Your task to perform on an android device: change your default location settings in chrome Image 0: 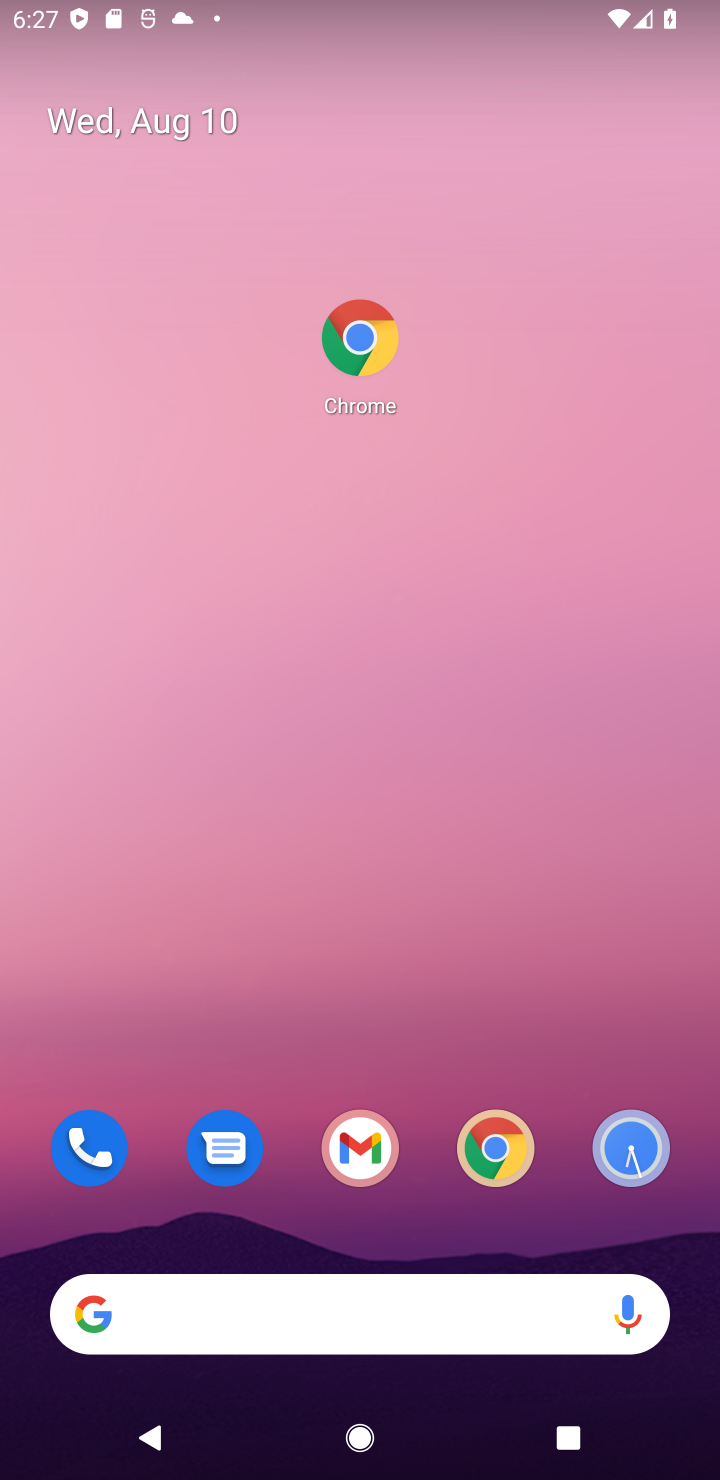
Step 0: click (509, 1156)
Your task to perform on an android device: change your default location settings in chrome Image 1: 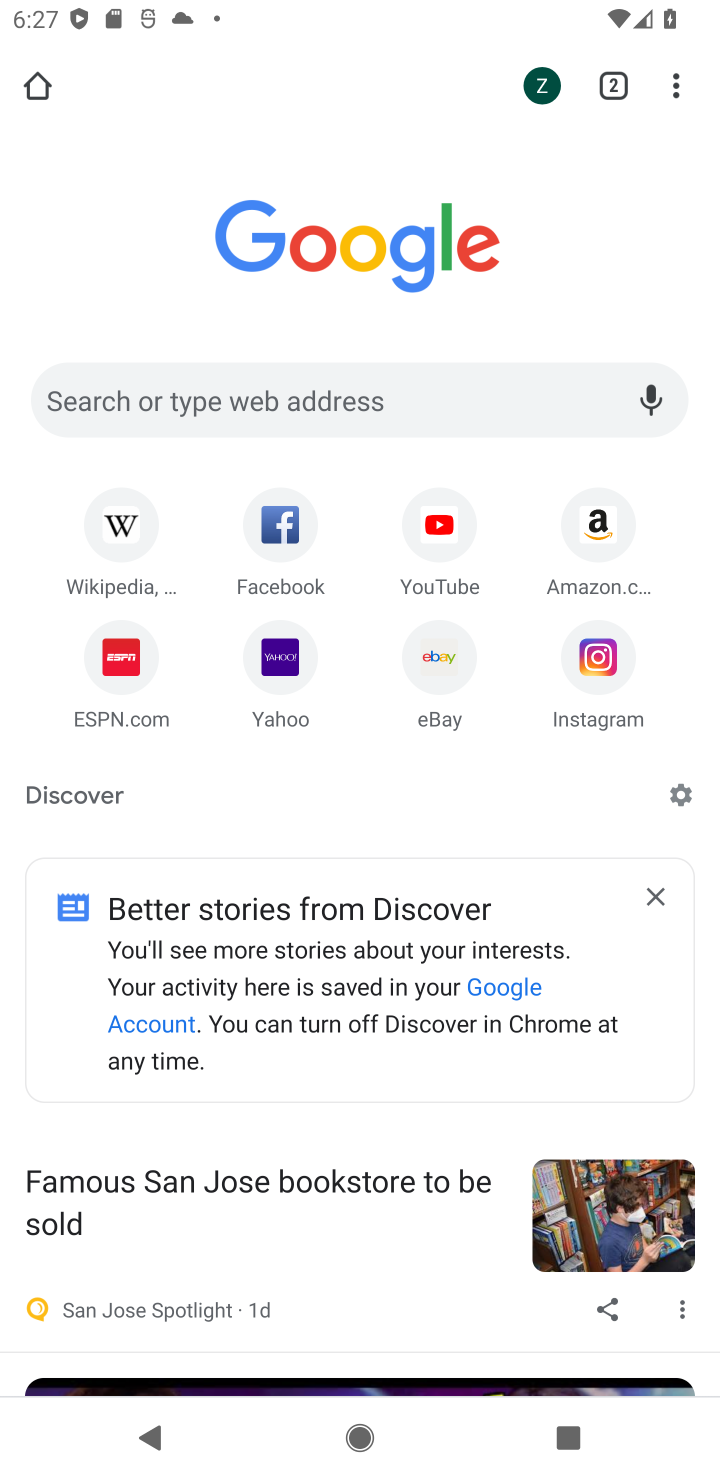
Step 1: click (674, 87)
Your task to perform on an android device: change your default location settings in chrome Image 2: 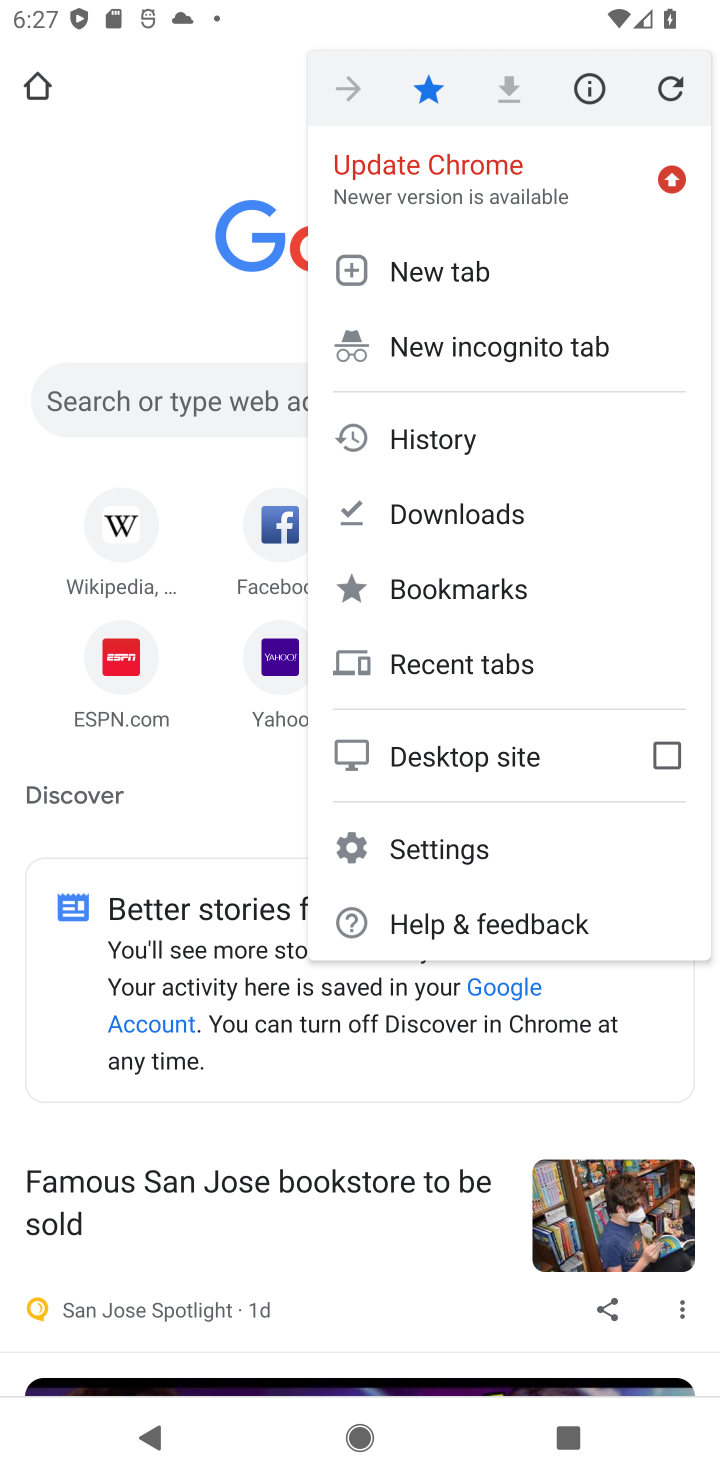
Step 2: click (409, 840)
Your task to perform on an android device: change your default location settings in chrome Image 3: 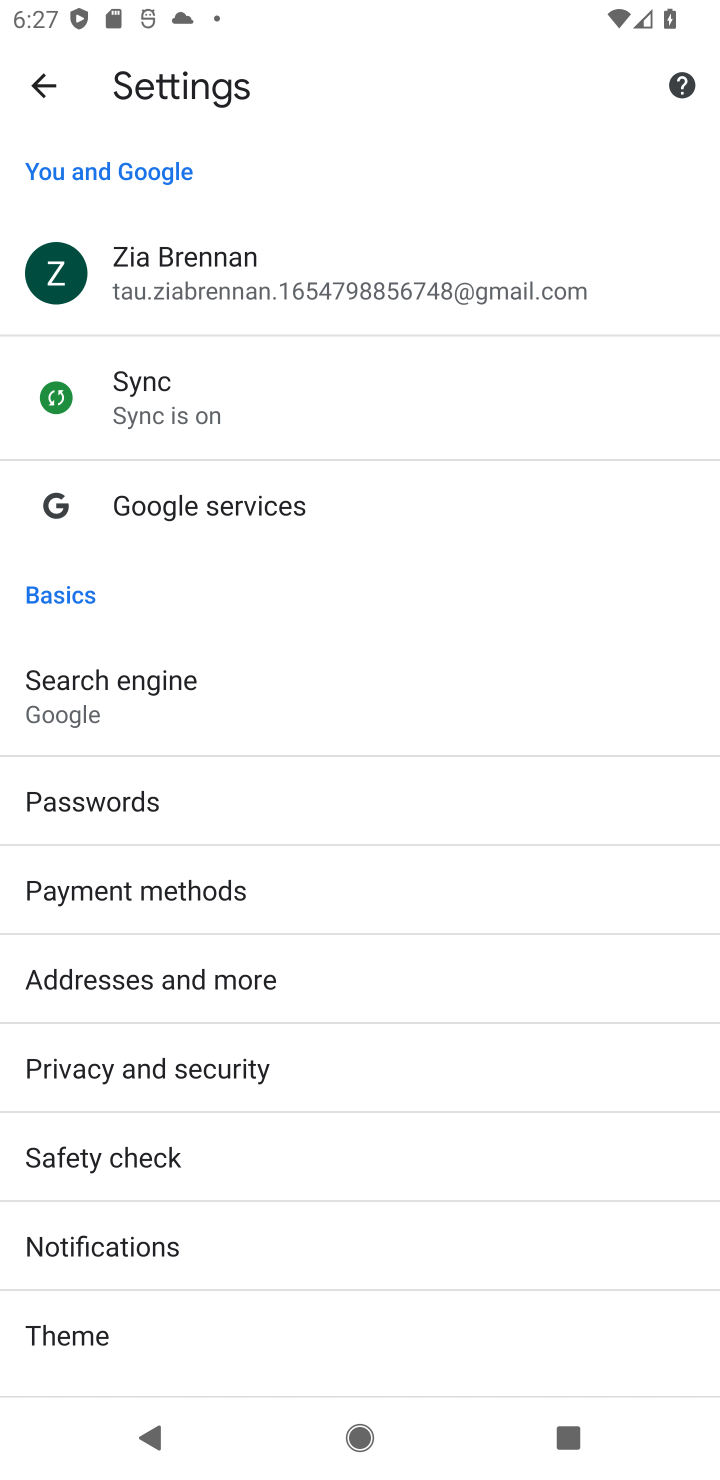
Step 3: drag from (537, 700) to (359, 29)
Your task to perform on an android device: change your default location settings in chrome Image 4: 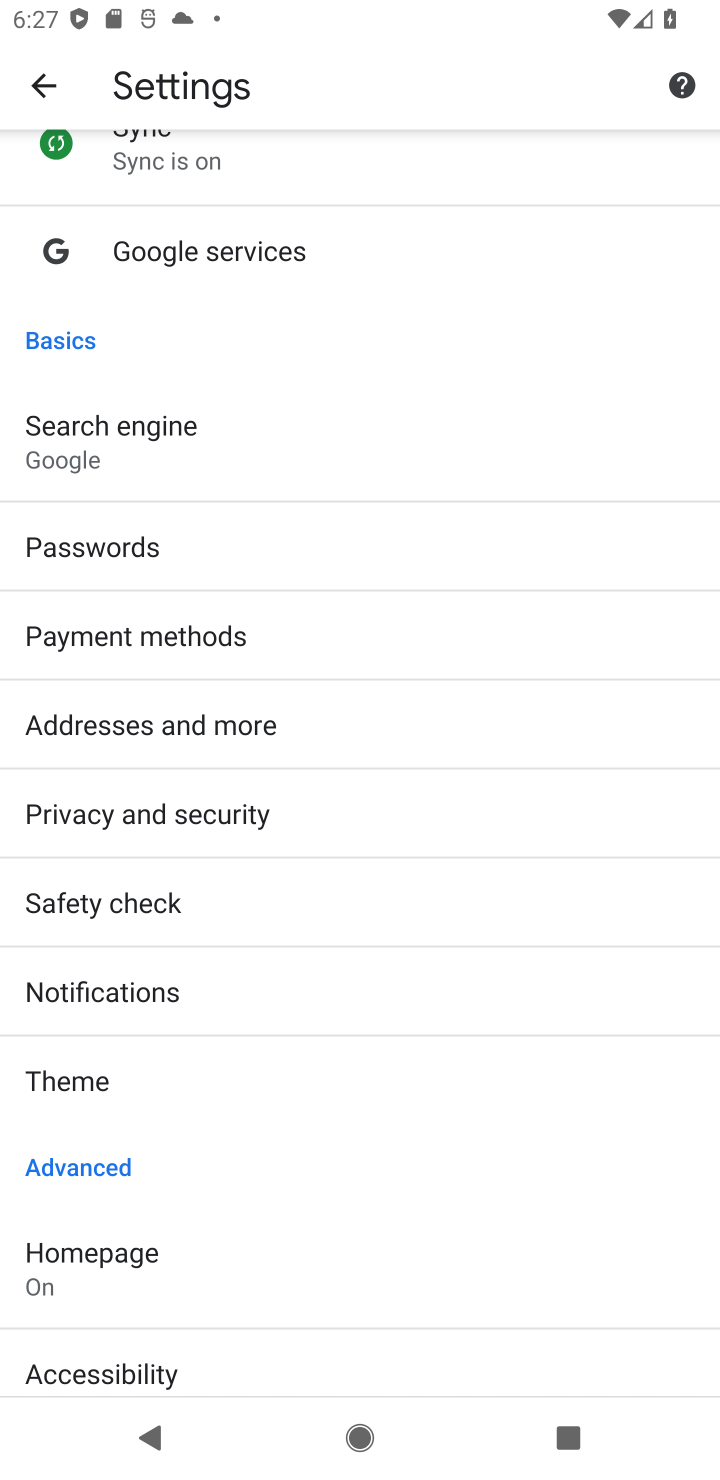
Step 4: drag from (357, 1184) to (304, 773)
Your task to perform on an android device: change your default location settings in chrome Image 5: 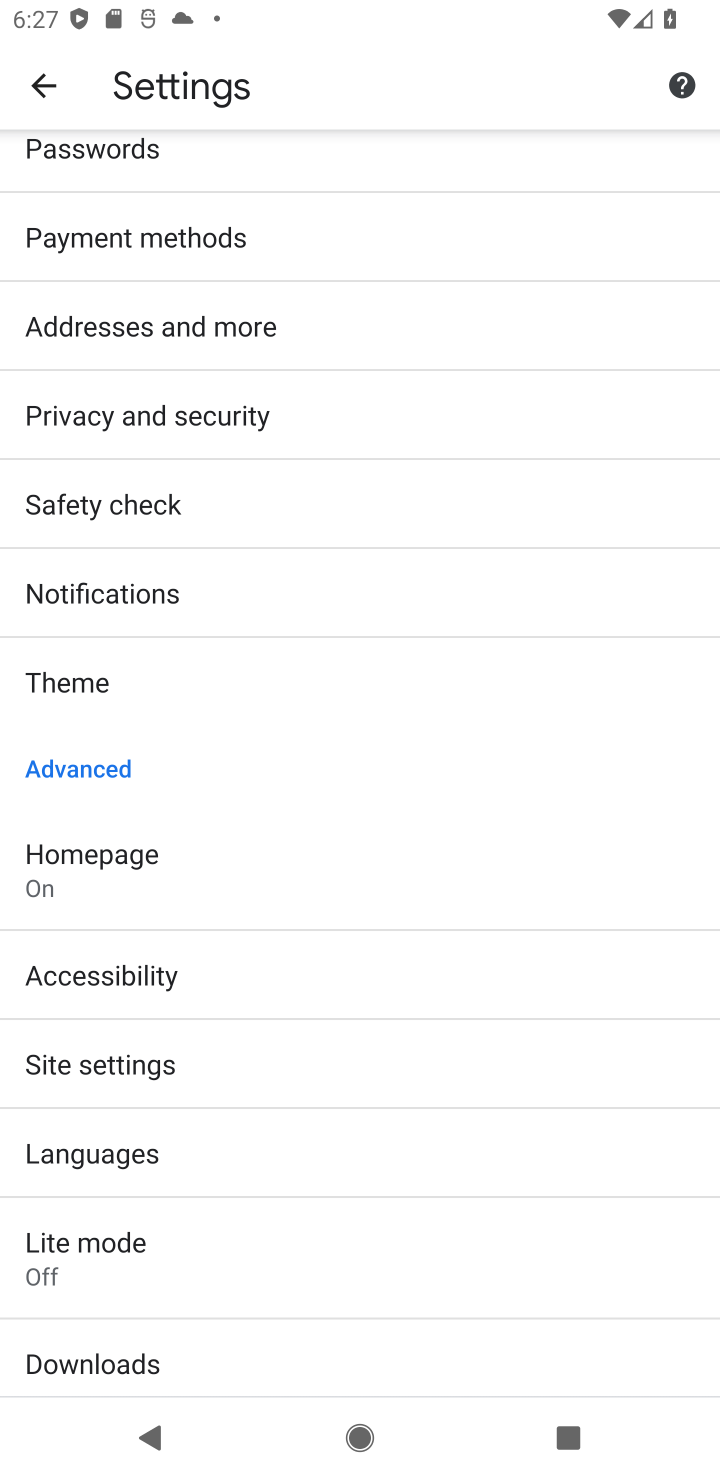
Step 5: click (66, 1061)
Your task to perform on an android device: change your default location settings in chrome Image 6: 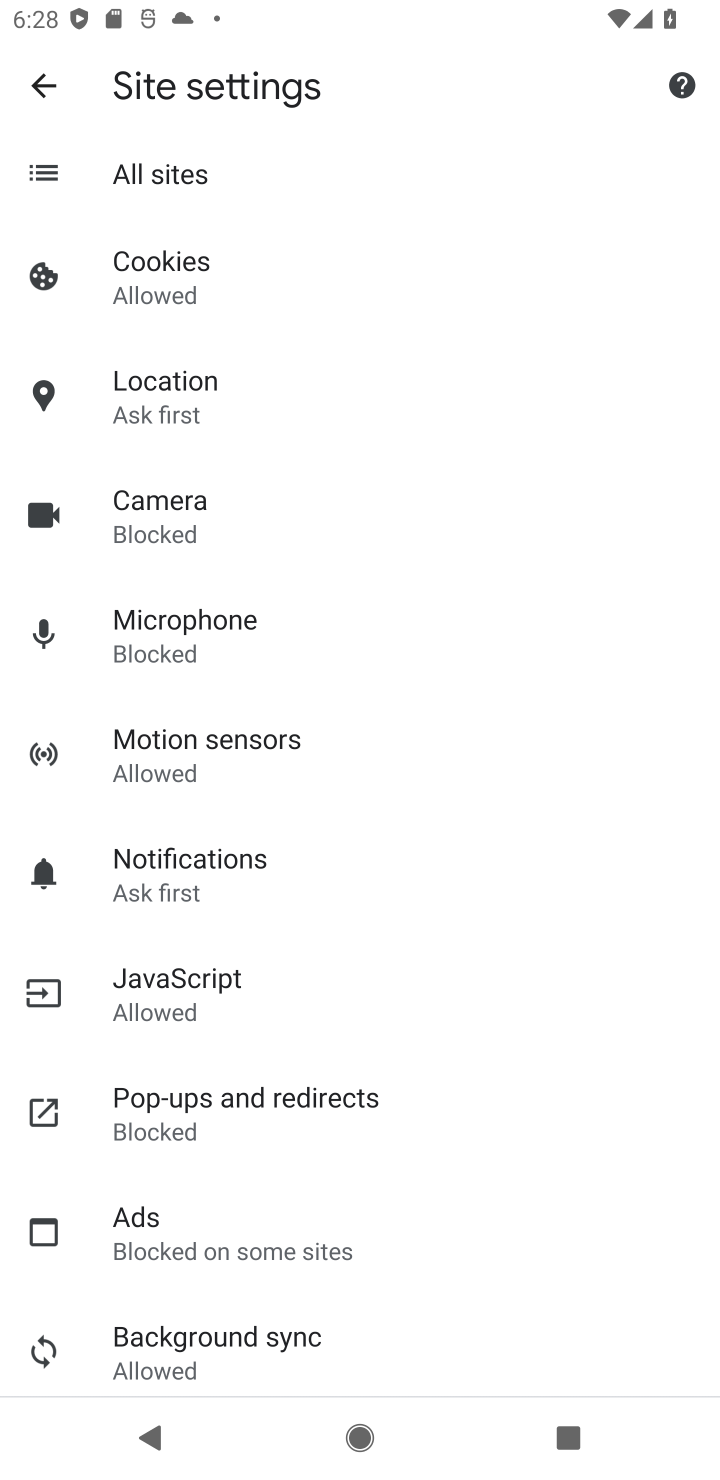
Step 6: click (208, 384)
Your task to perform on an android device: change your default location settings in chrome Image 7: 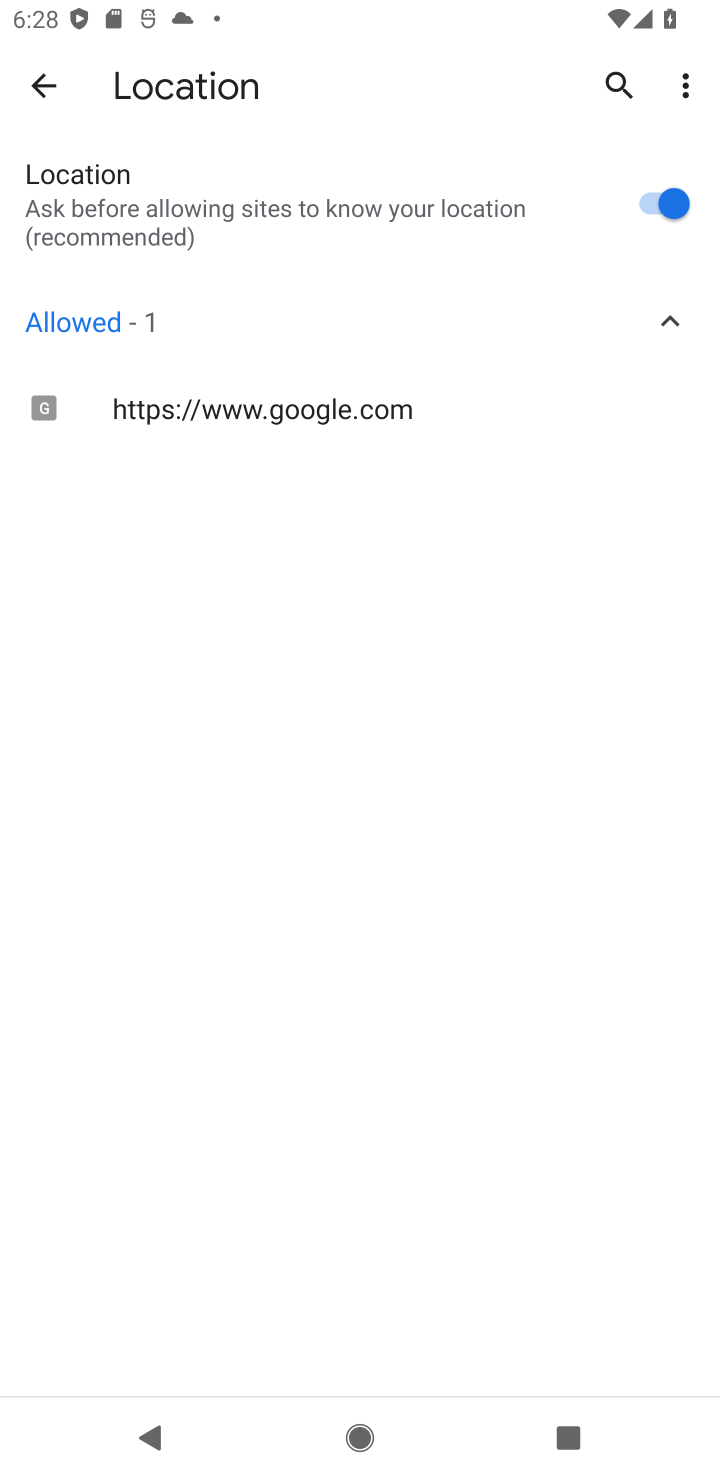
Step 7: click (661, 208)
Your task to perform on an android device: change your default location settings in chrome Image 8: 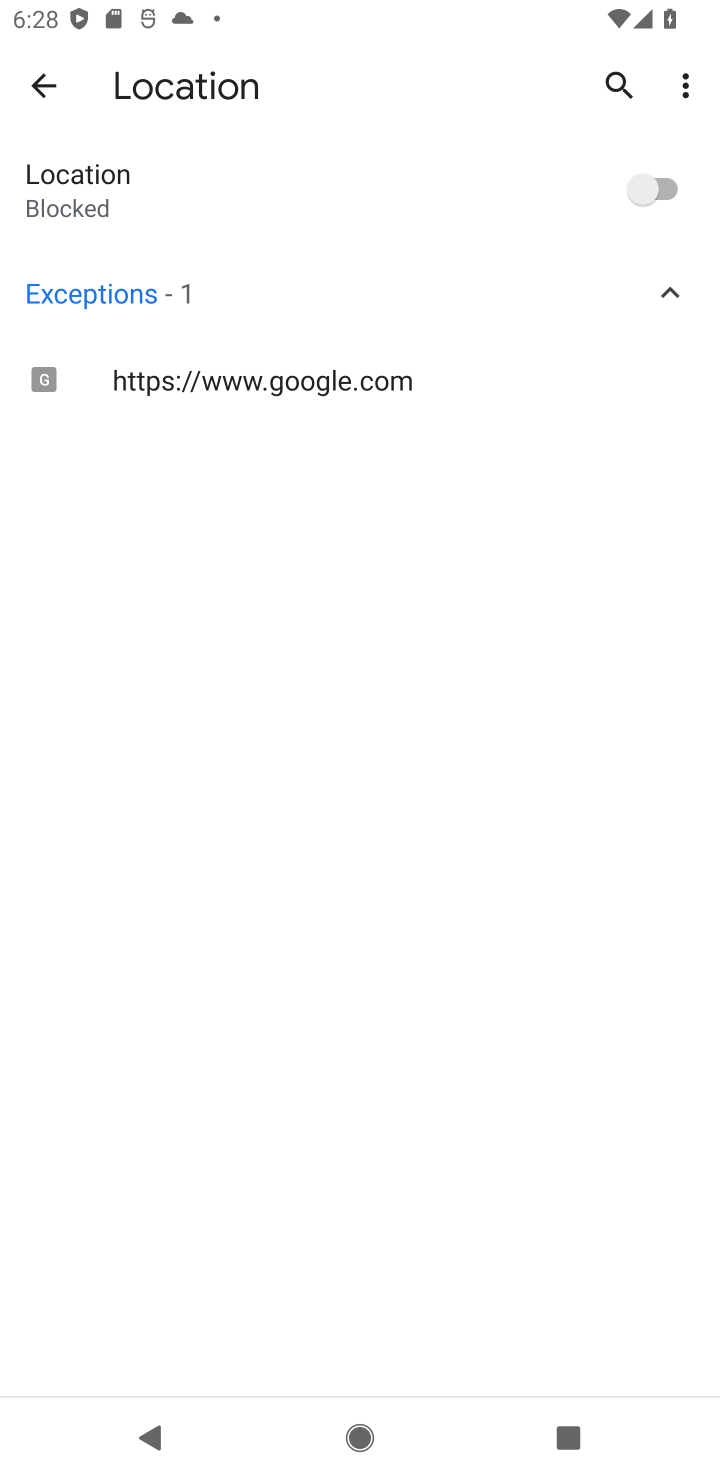
Step 8: task complete